Your task to perform on an android device: stop showing notifications on the lock screen Image 0: 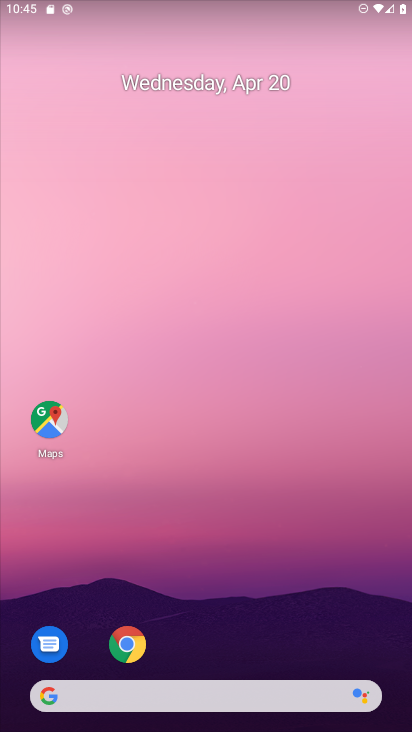
Step 0: drag from (301, 560) to (271, 61)
Your task to perform on an android device: stop showing notifications on the lock screen Image 1: 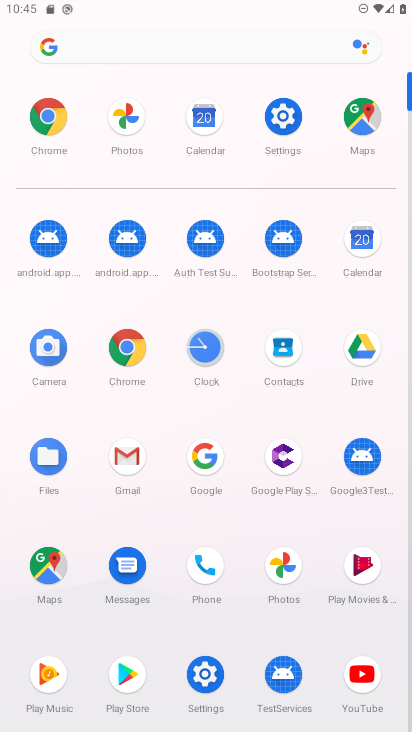
Step 1: click (274, 126)
Your task to perform on an android device: stop showing notifications on the lock screen Image 2: 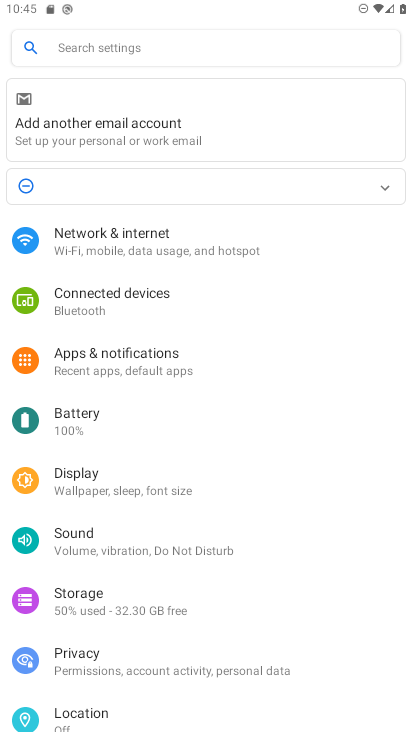
Step 2: click (172, 368)
Your task to perform on an android device: stop showing notifications on the lock screen Image 3: 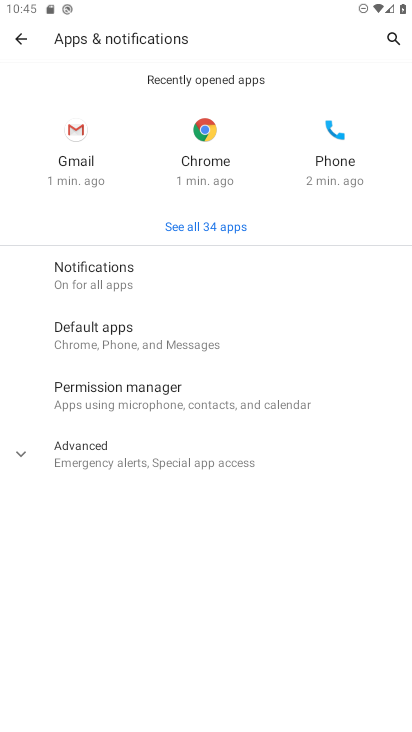
Step 3: click (173, 270)
Your task to perform on an android device: stop showing notifications on the lock screen Image 4: 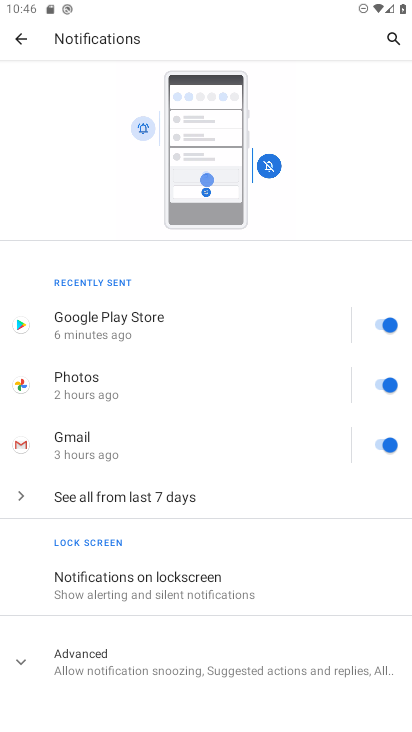
Step 4: click (231, 583)
Your task to perform on an android device: stop showing notifications on the lock screen Image 5: 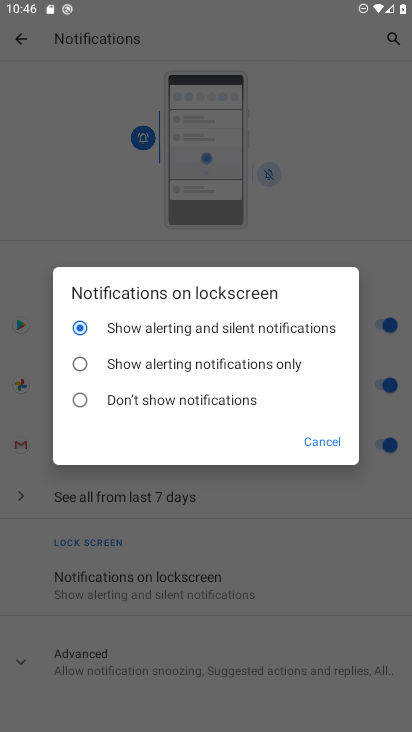
Step 5: click (185, 399)
Your task to perform on an android device: stop showing notifications on the lock screen Image 6: 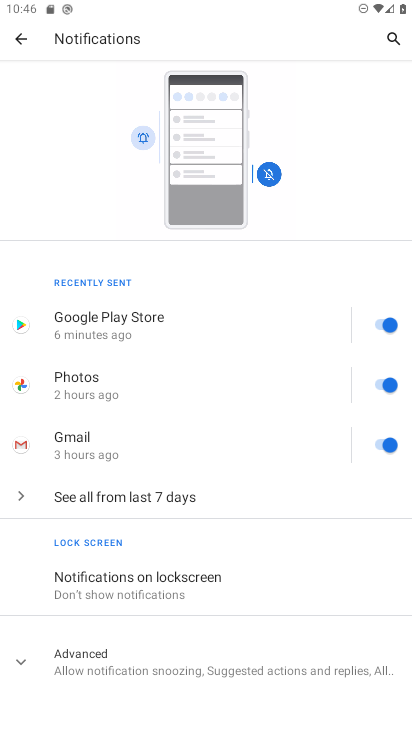
Step 6: task complete